Your task to perform on an android device: remove spam from my inbox in the gmail app Image 0: 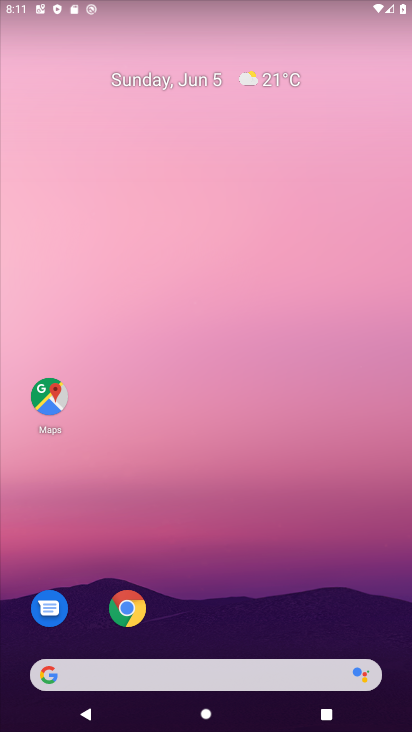
Step 0: drag from (320, 597) to (265, 92)
Your task to perform on an android device: remove spam from my inbox in the gmail app Image 1: 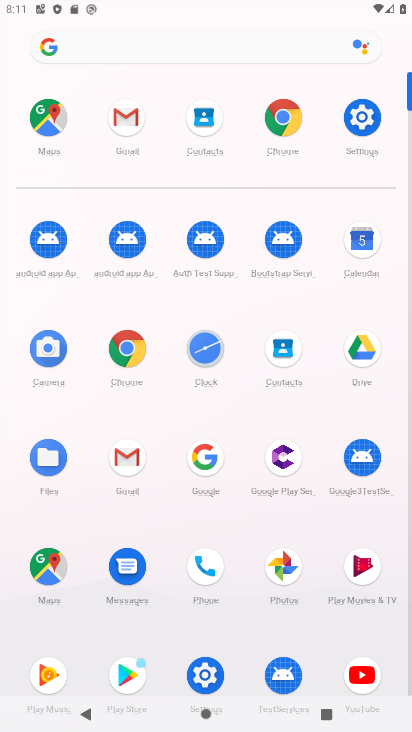
Step 1: click (122, 478)
Your task to perform on an android device: remove spam from my inbox in the gmail app Image 2: 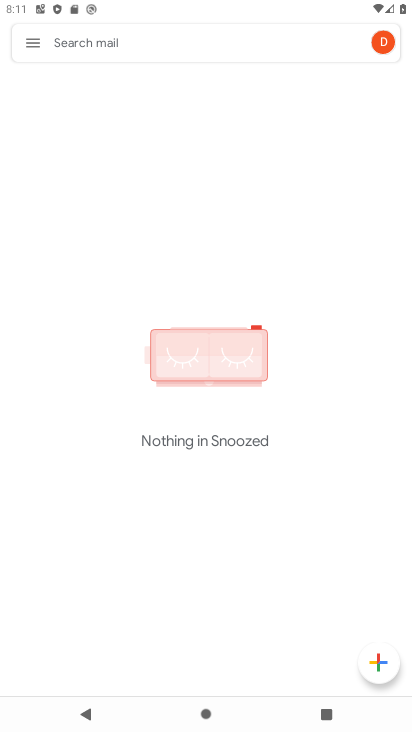
Step 2: click (35, 43)
Your task to perform on an android device: remove spam from my inbox in the gmail app Image 3: 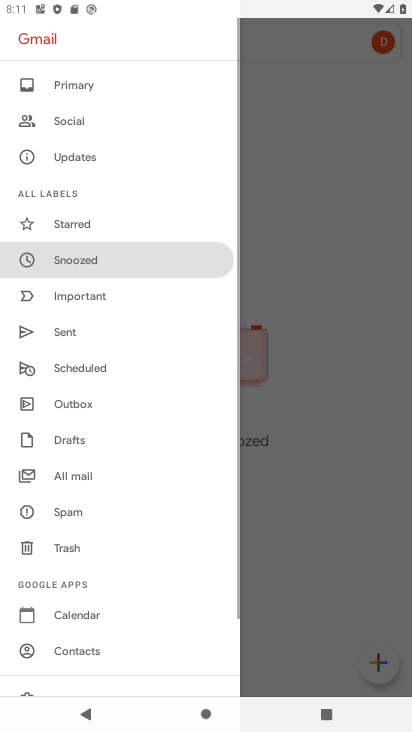
Step 3: click (83, 504)
Your task to perform on an android device: remove spam from my inbox in the gmail app Image 4: 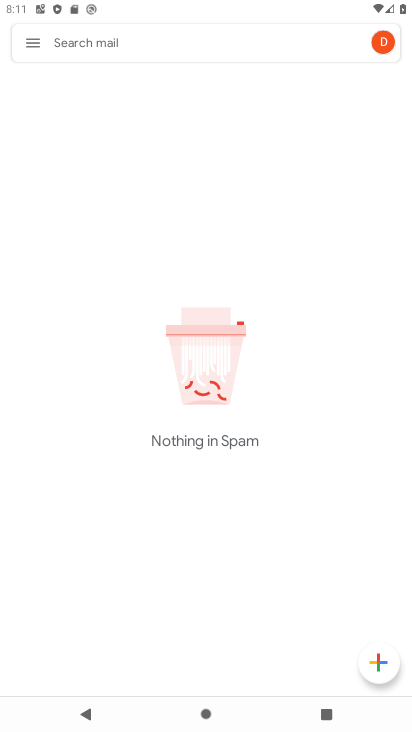
Step 4: task complete